Your task to perform on an android device: create a new album in the google photos Image 0: 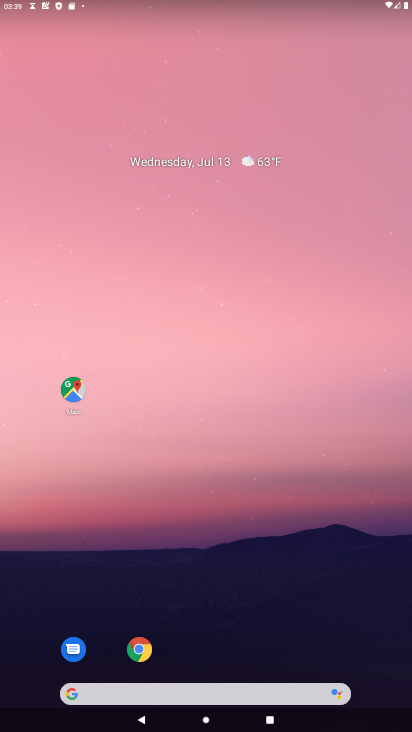
Step 0: drag from (295, 612) to (270, 228)
Your task to perform on an android device: create a new album in the google photos Image 1: 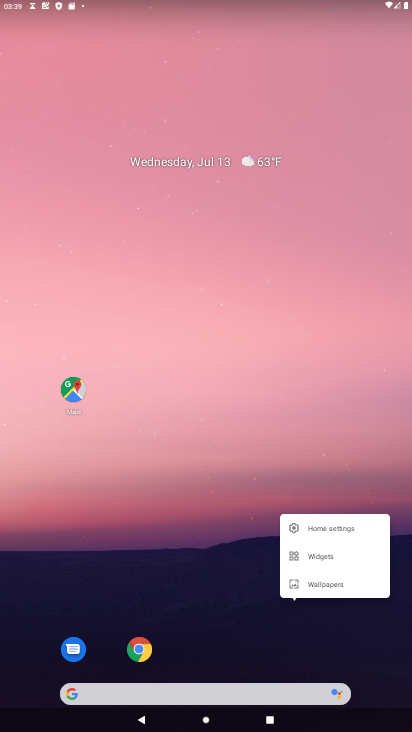
Step 1: click (208, 440)
Your task to perform on an android device: create a new album in the google photos Image 2: 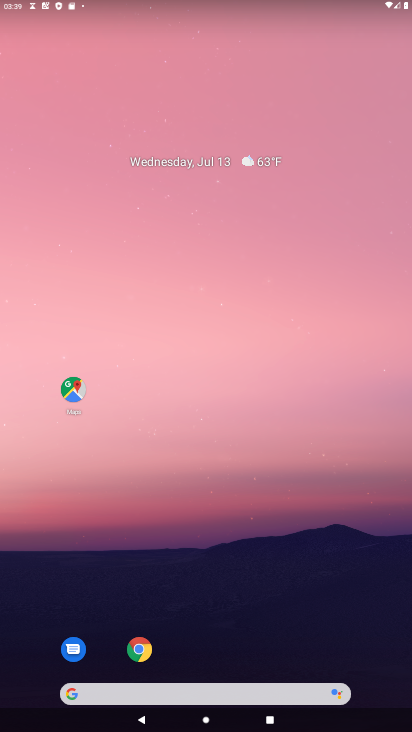
Step 2: drag from (208, 440) to (220, 0)
Your task to perform on an android device: create a new album in the google photos Image 3: 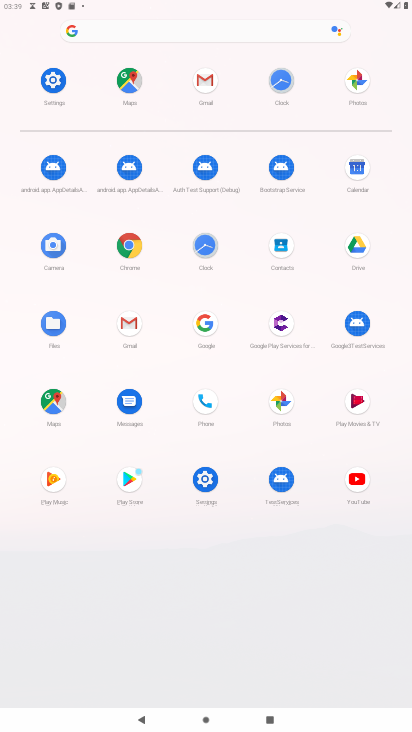
Step 3: click (291, 404)
Your task to perform on an android device: create a new album in the google photos Image 4: 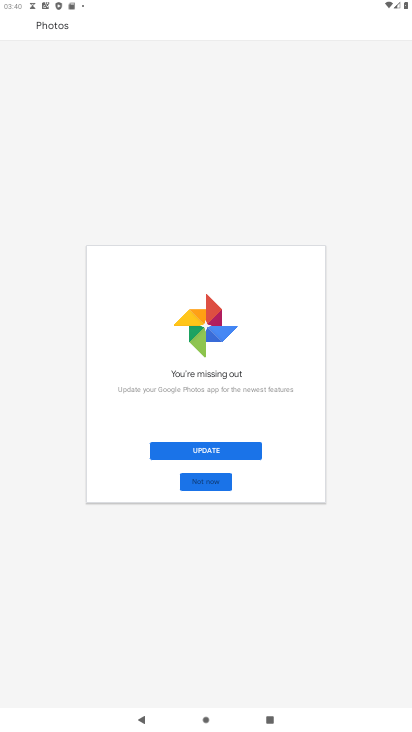
Step 4: click (210, 446)
Your task to perform on an android device: create a new album in the google photos Image 5: 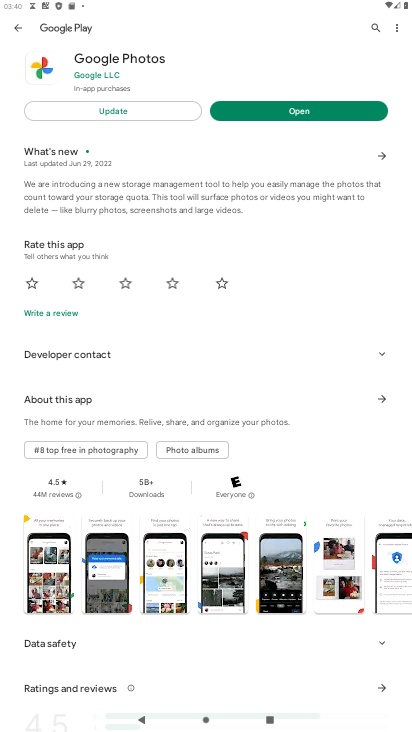
Step 5: click (125, 100)
Your task to perform on an android device: create a new album in the google photos Image 6: 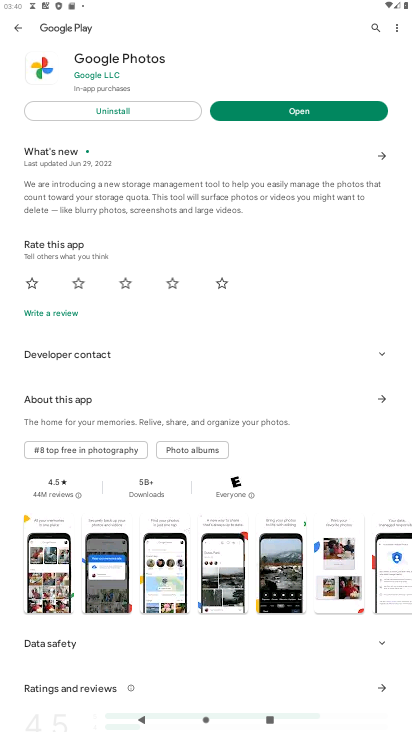
Step 6: click (253, 100)
Your task to perform on an android device: create a new album in the google photos Image 7: 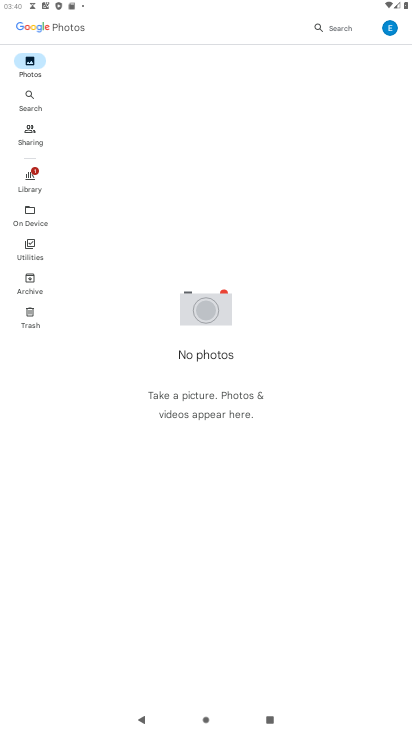
Step 7: click (32, 186)
Your task to perform on an android device: create a new album in the google photos Image 8: 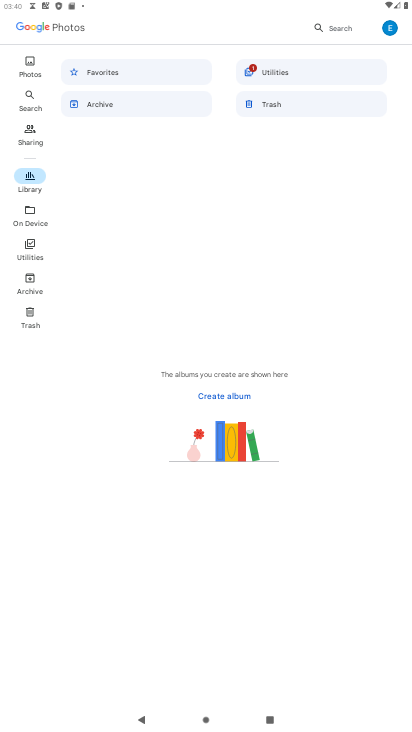
Step 8: click (226, 395)
Your task to perform on an android device: create a new album in the google photos Image 9: 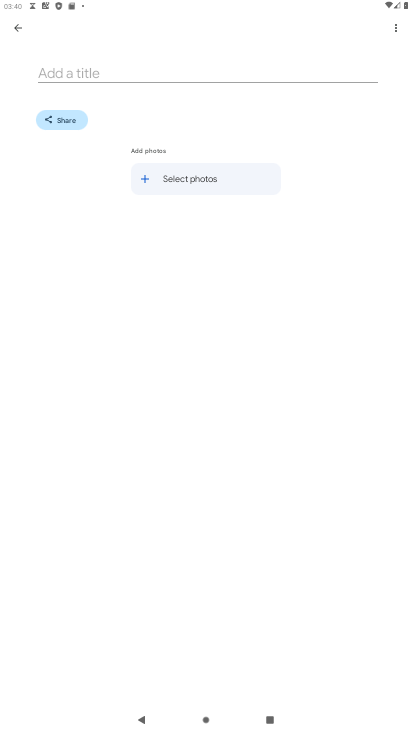
Step 9: click (83, 61)
Your task to perform on an android device: create a new album in the google photos Image 10: 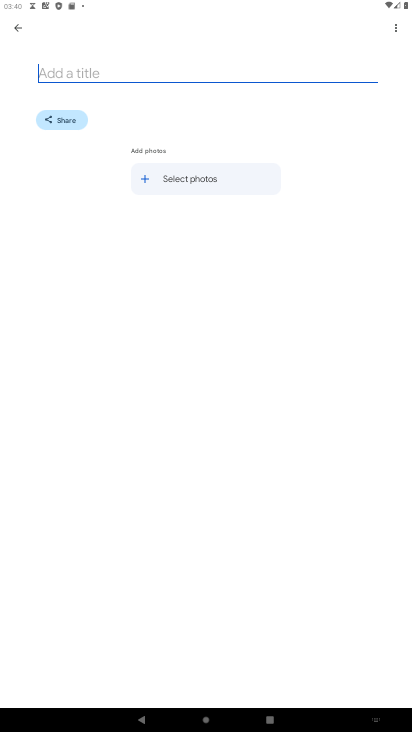
Step 10: type "bh"
Your task to perform on an android device: create a new album in the google photos Image 11: 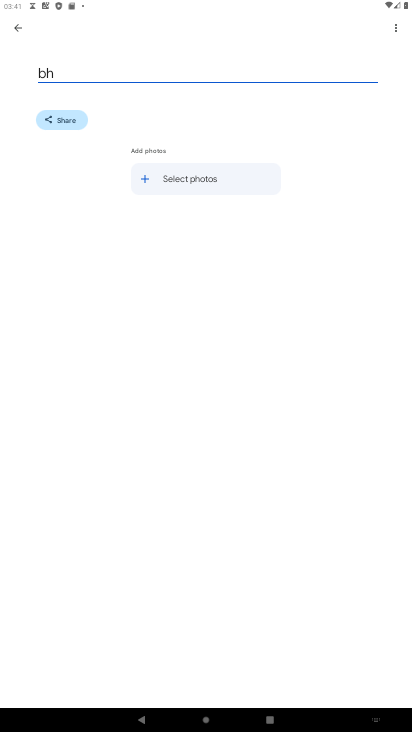
Step 11: click (137, 179)
Your task to perform on an android device: create a new album in the google photos Image 12: 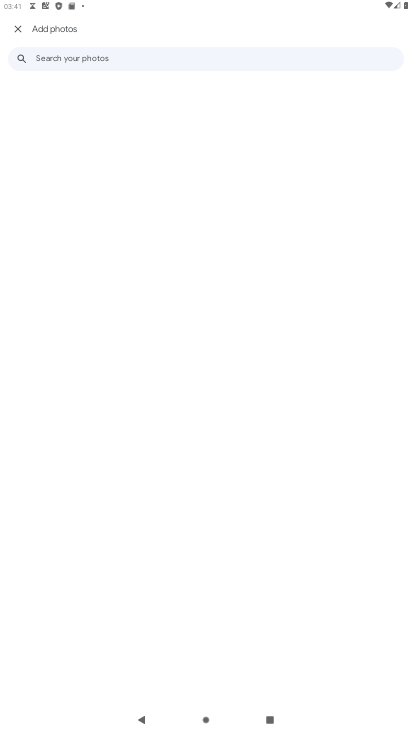
Step 12: task complete